Your task to perform on an android device: Open Maps and search for coffee Image 0: 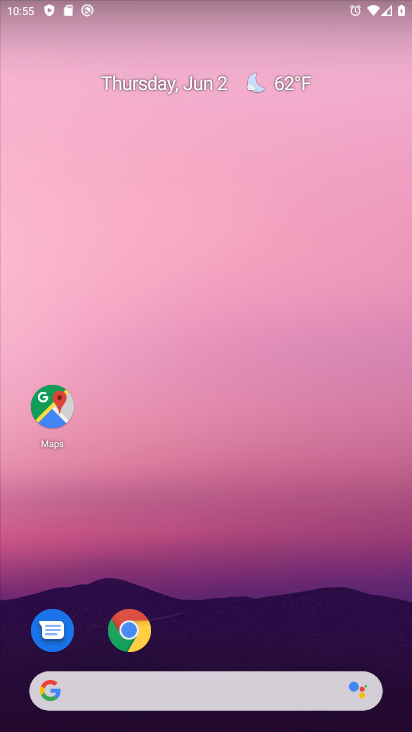
Step 0: press home button
Your task to perform on an android device: Open Maps and search for coffee Image 1: 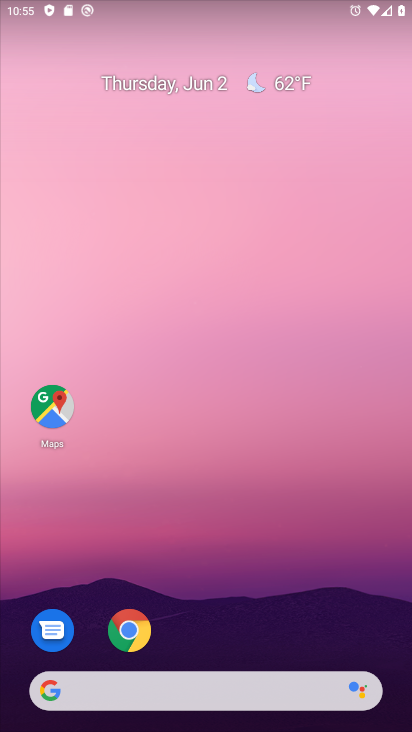
Step 1: click (58, 415)
Your task to perform on an android device: Open Maps and search for coffee Image 2: 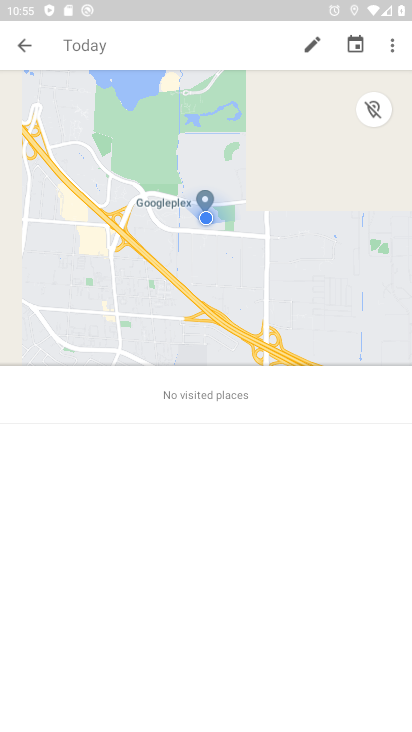
Step 2: click (31, 41)
Your task to perform on an android device: Open Maps and search for coffee Image 3: 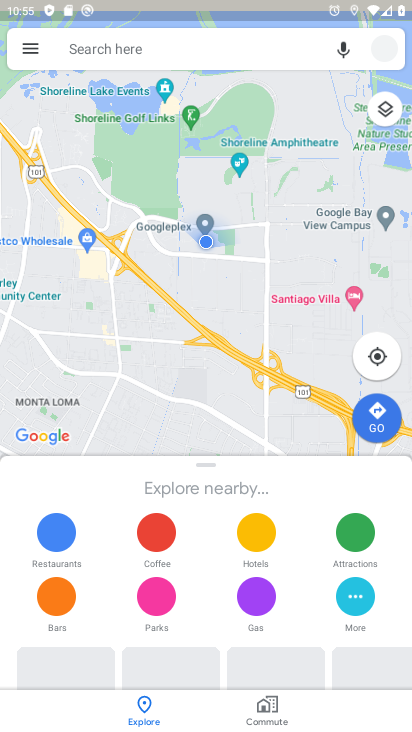
Step 3: click (30, 46)
Your task to perform on an android device: Open Maps and search for coffee Image 4: 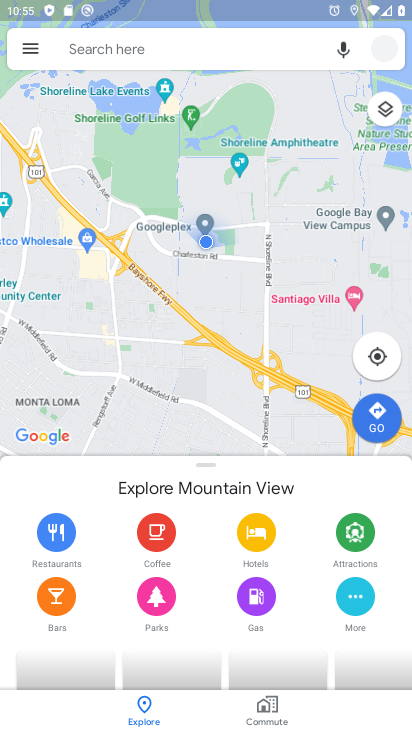
Step 4: click (219, 51)
Your task to perform on an android device: Open Maps and search for coffee Image 5: 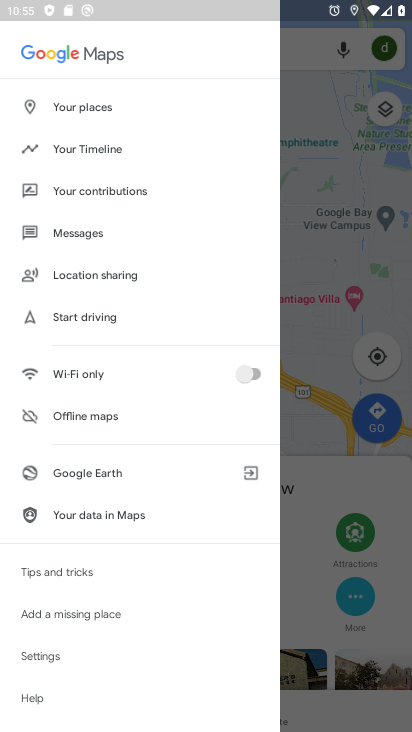
Step 5: click (303, 51)
Your task to perform on an android device: Open Maps and search for coffee Image 6: 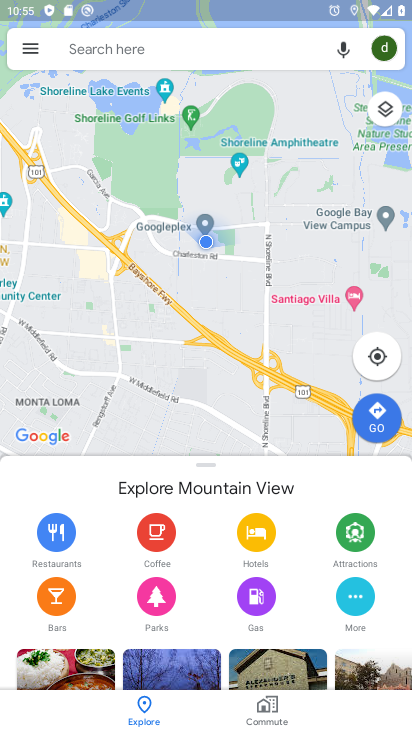
Step 6: click (267, 42)
Your task to perform on an android device: Open Maps and search for coffee Image 7: 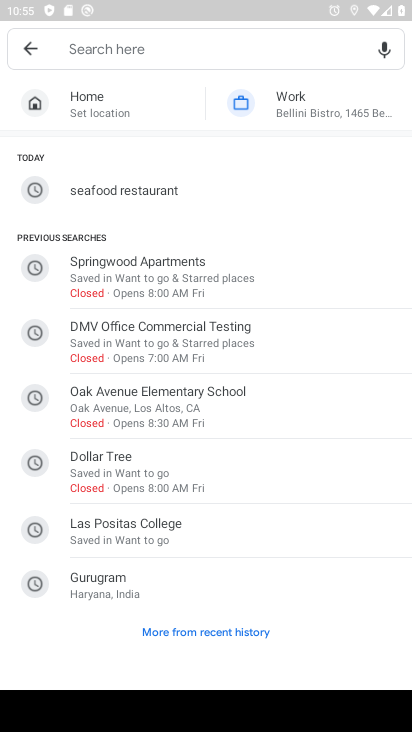
Step 7: type "coffee"
Your task to perform on an android device: Open Maps and search for coffee Image 8: 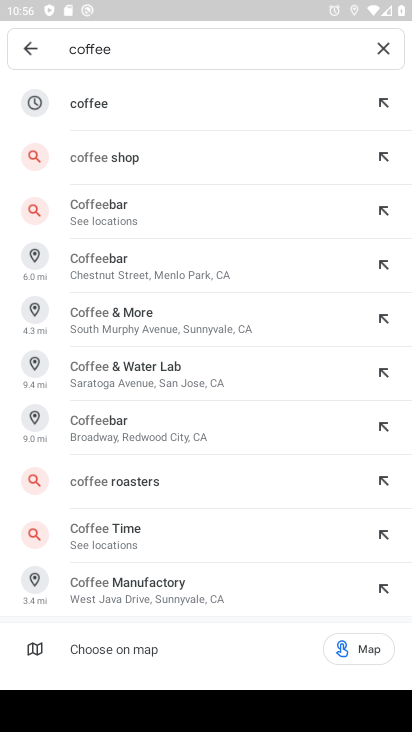
Step 8: click (89, 105)
Your task to perform on an android device: Open Maps and search for coffee Image 9: 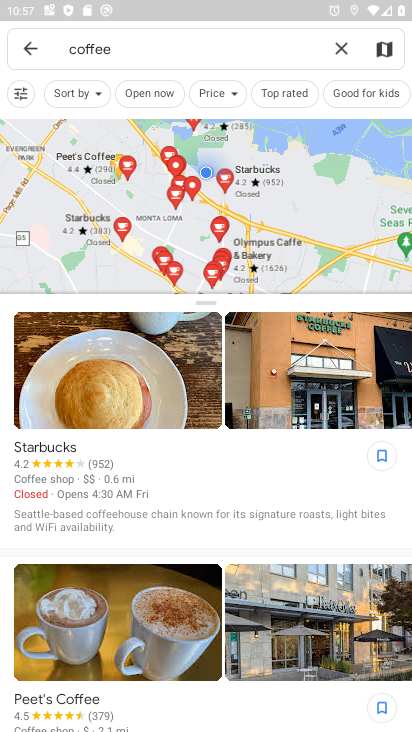
Step 9: task complete